Your task to perform on an android device: open app "Indeed Job Search" Image 0: 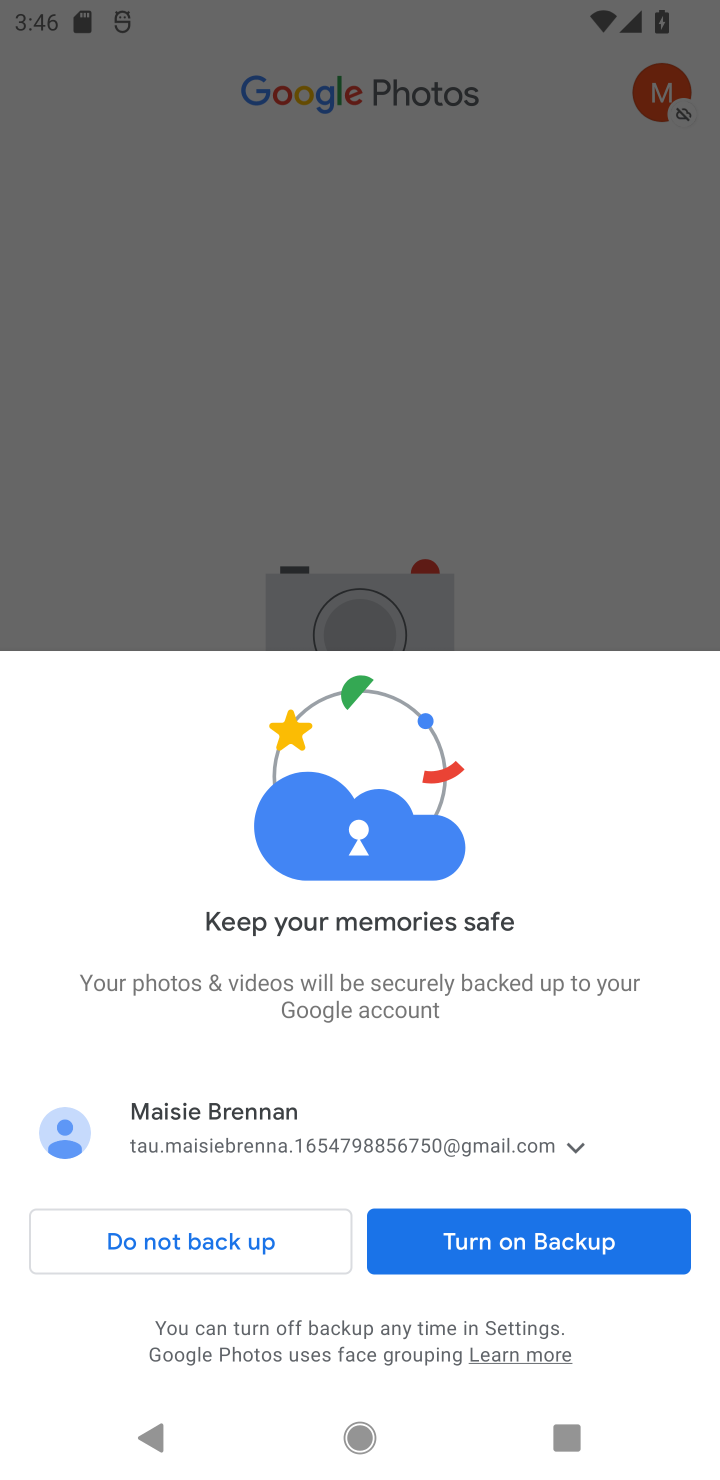
Step 0: click (259, 1230)
Your task to perform on an android device: open app "Indeed Job Search" Image 1: 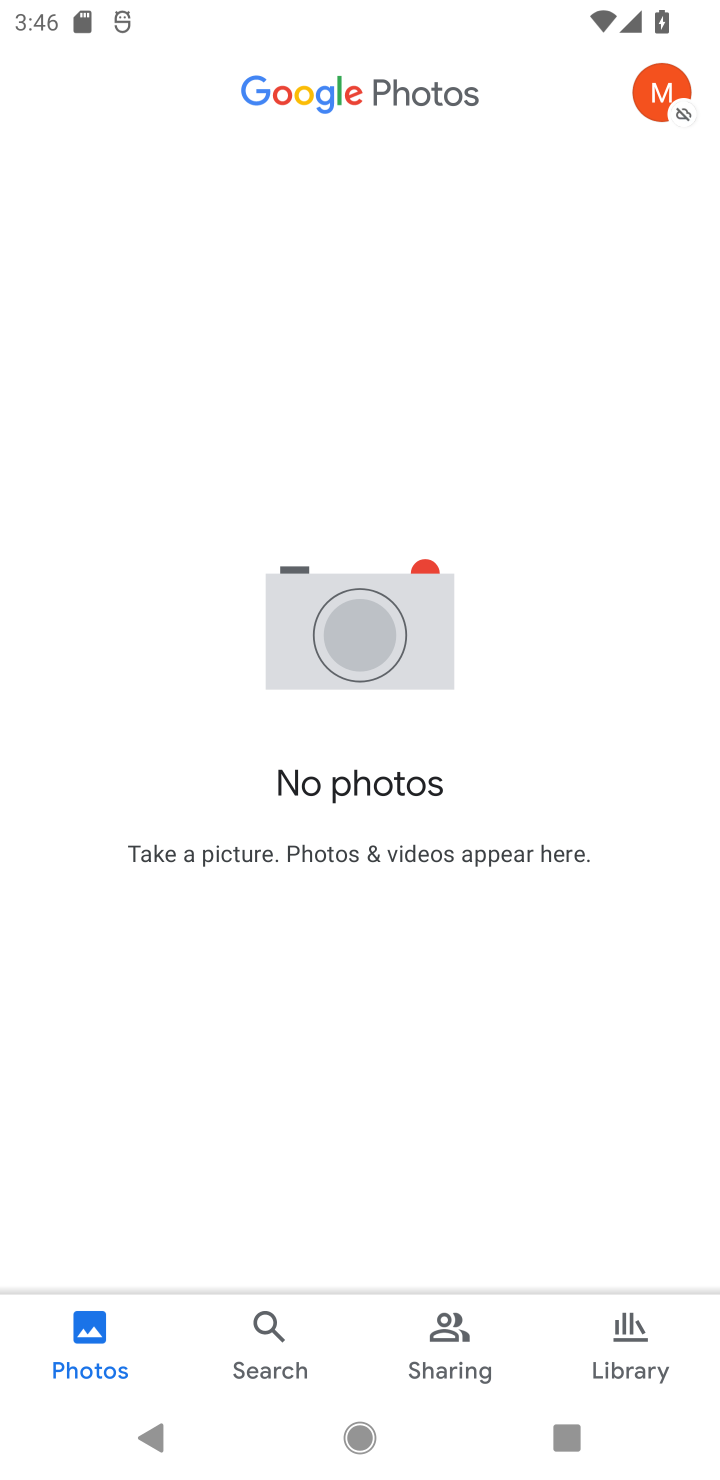
Step 1: press home button
Your task to perform on an android device: open app "Indeed Job Search" Image 2: 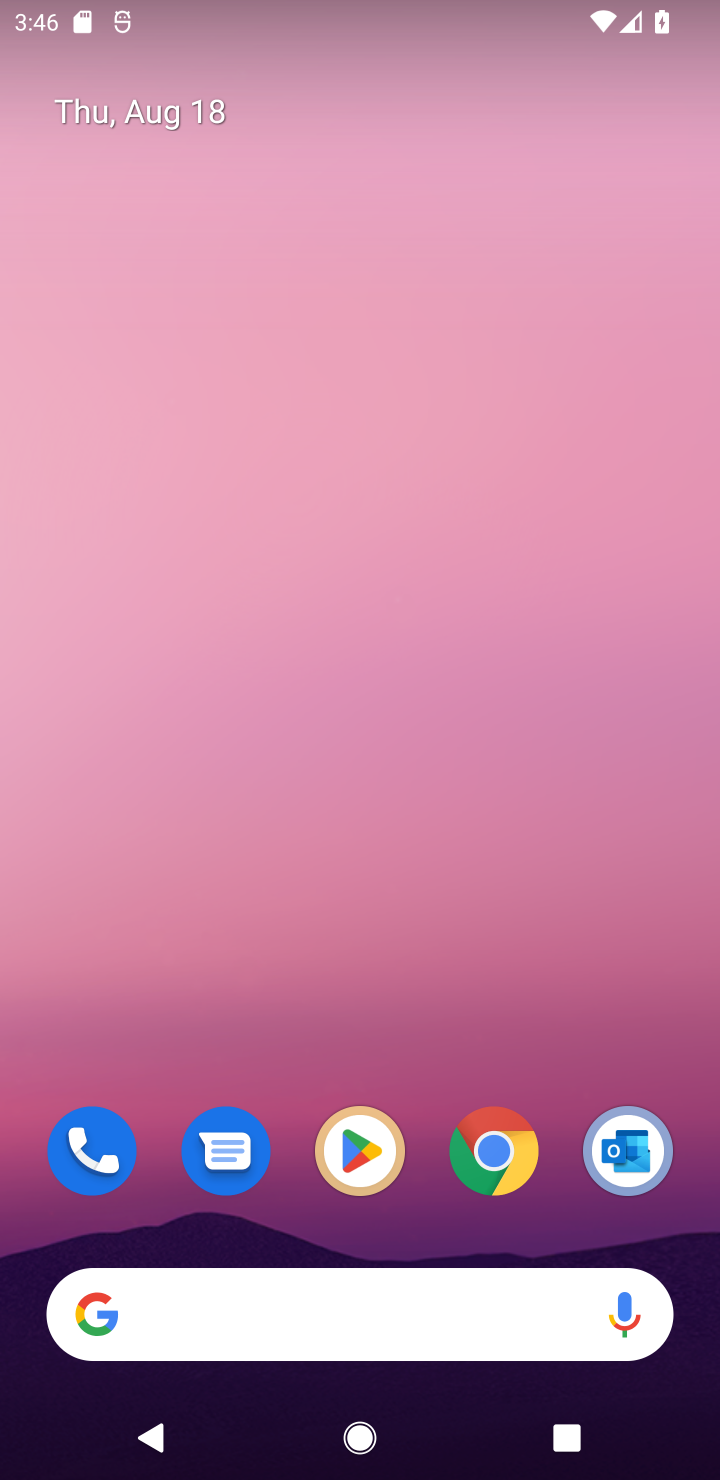
Step 2: click (351, 1196)
Your task to perform on an android device: open app "Indeed Job Search" Image 3: 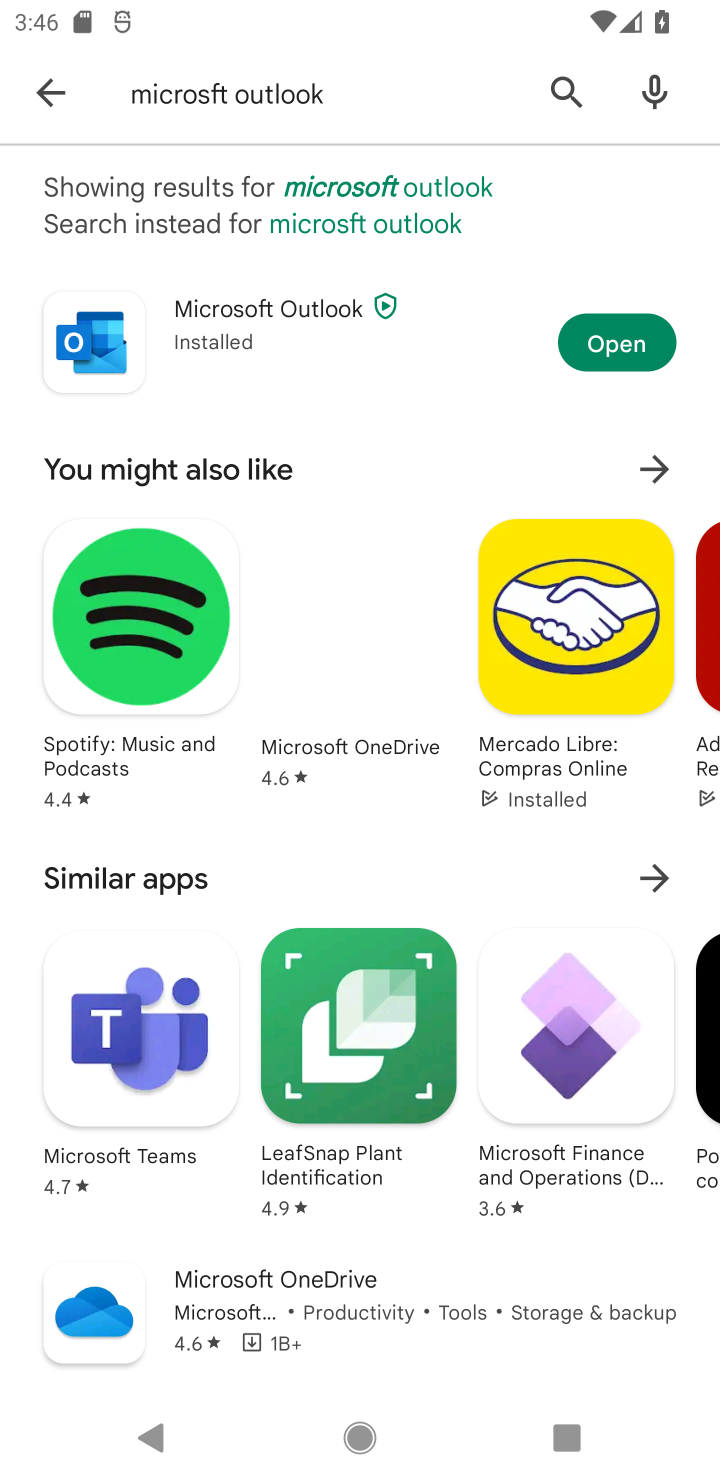
Step 3: click (572, 102)
Your task to perform on an android device: open app "Indeed Job Search" Image 4: 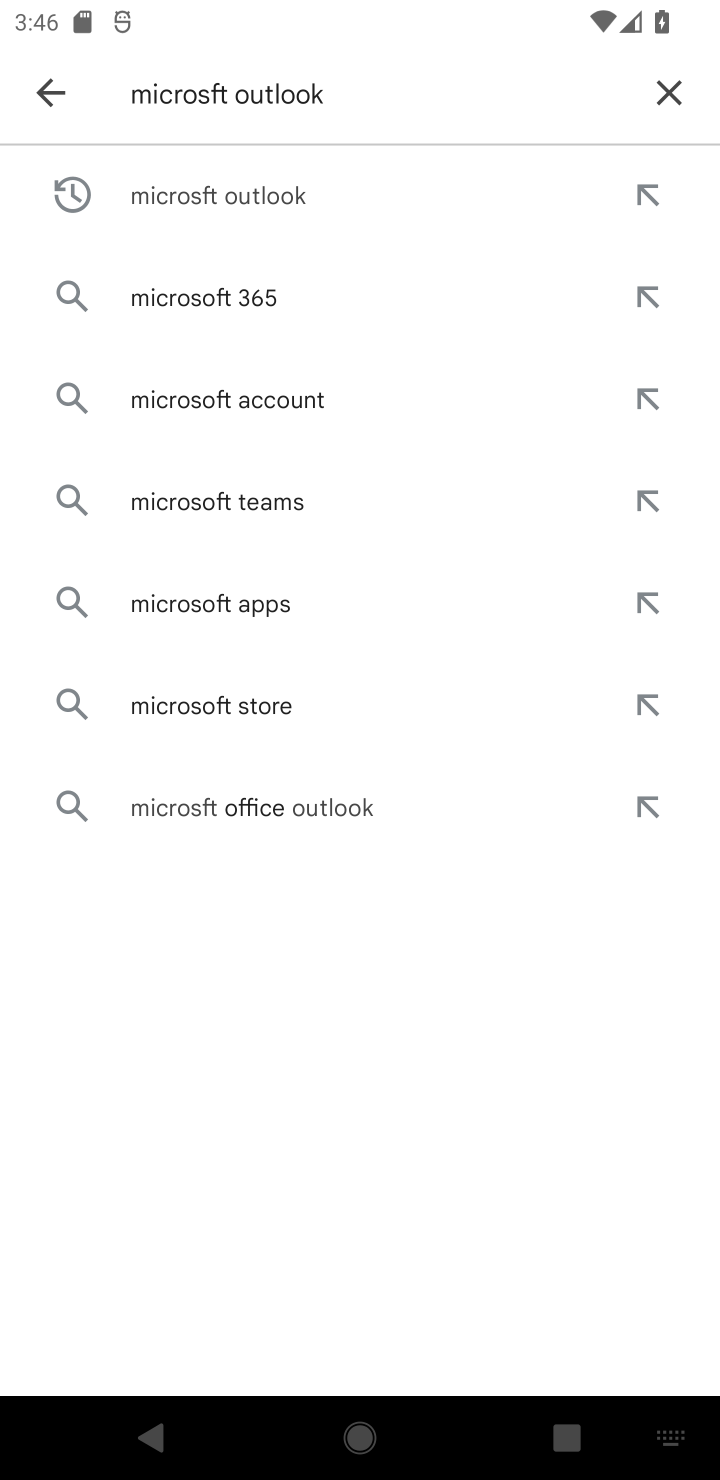
Step 4: click (656, 99)
Your task to perform on an android device: open app "Indeed Job Search" Image 5: 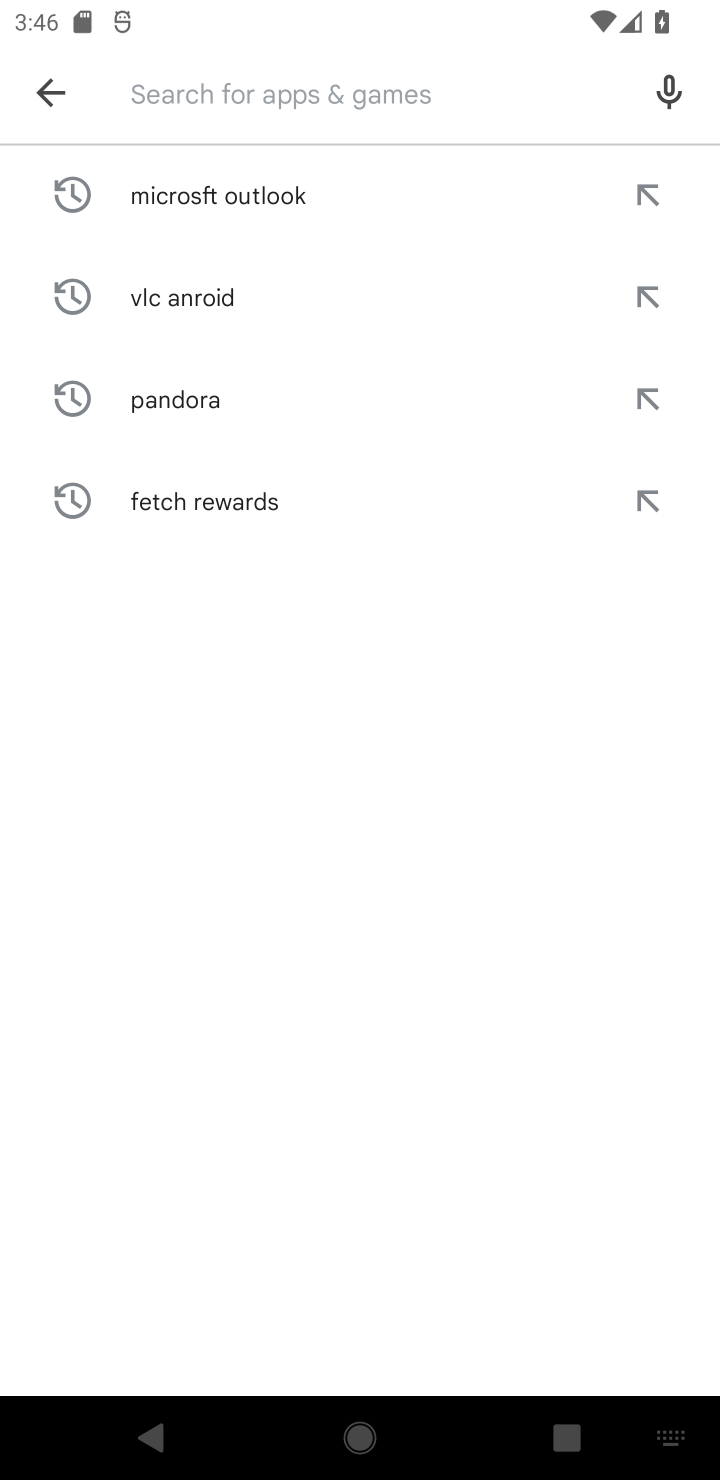
Step 5: type "indeed"
Your task to perform on an android device: open app "Indeed Job Search" Image 6: 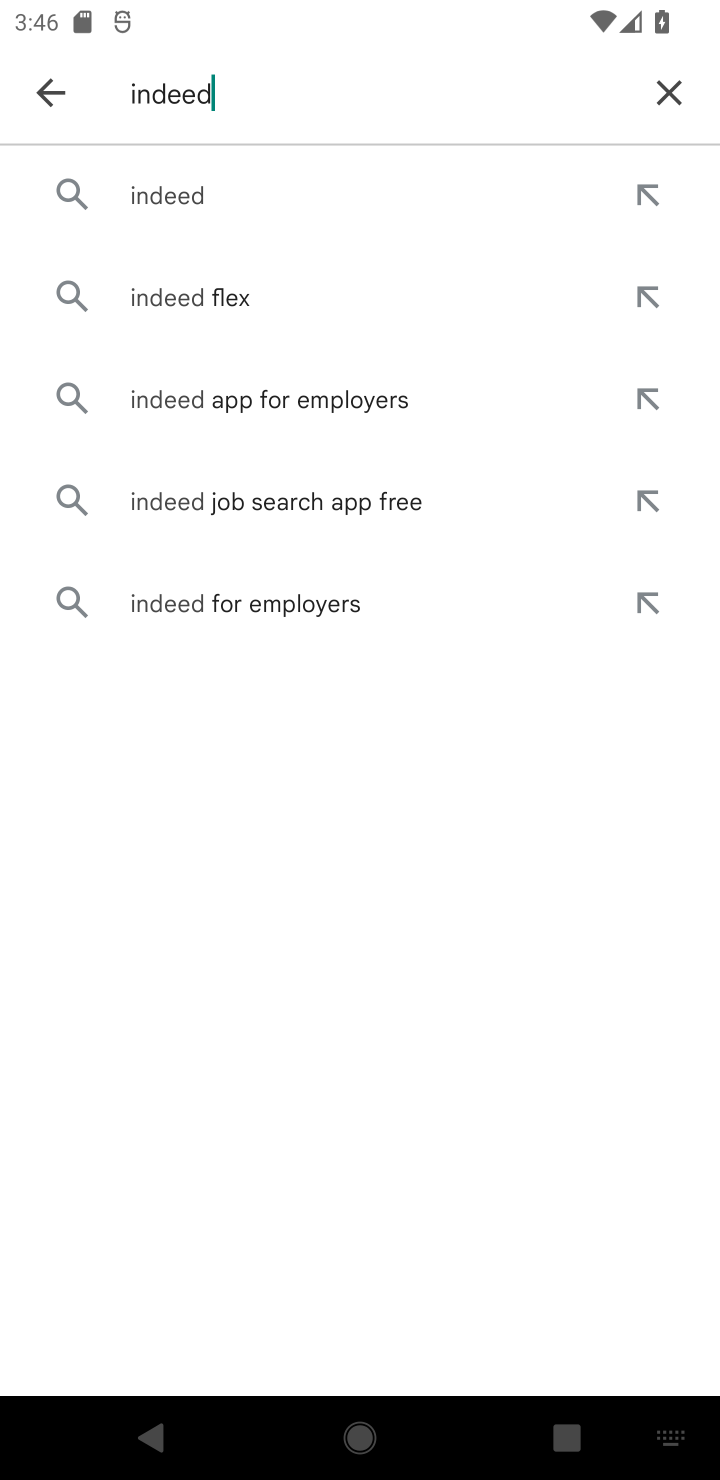
Step 6: click (192, 209)
Your task to perform on an android device: open app "Indeed Job Search" Image 7: 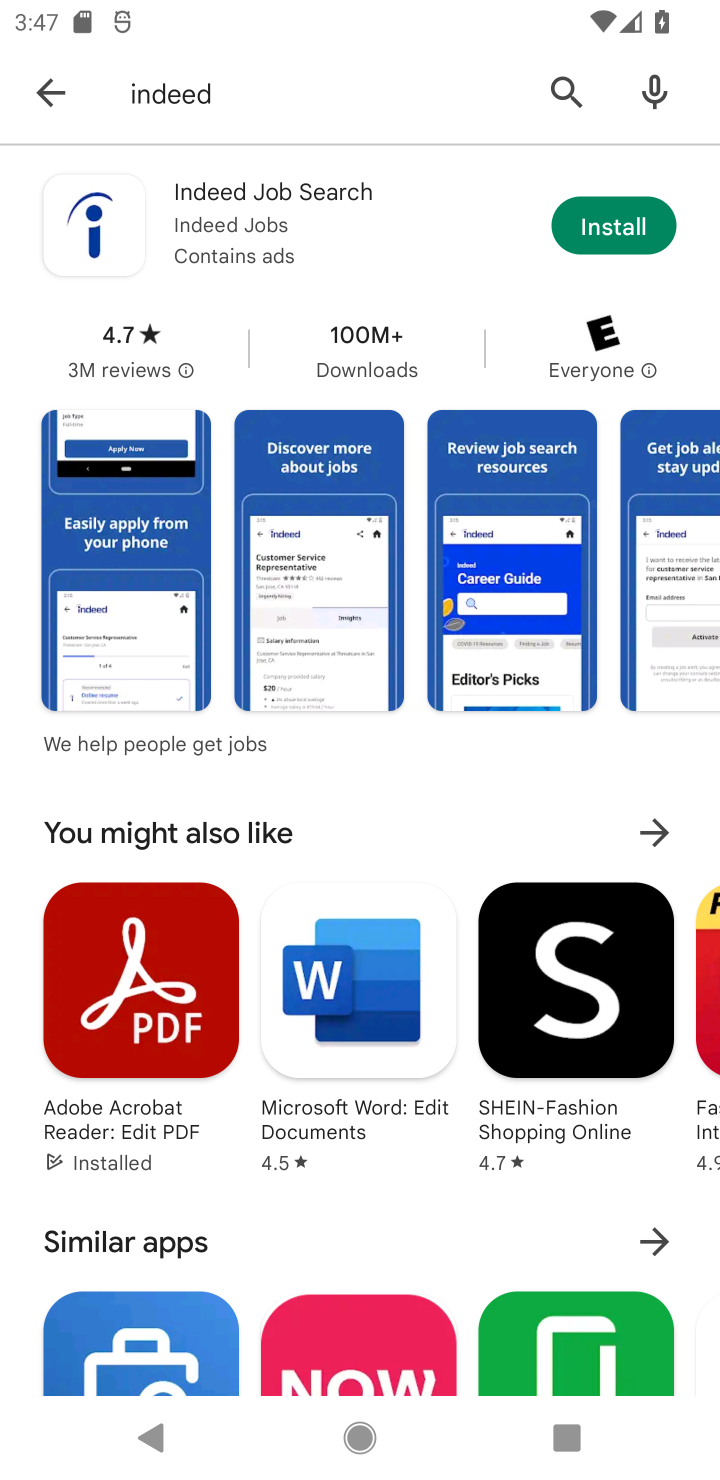
Step 7: click (563, 213)
Your task to perform on an android device: open app "Indeed Job Search" Image 8: 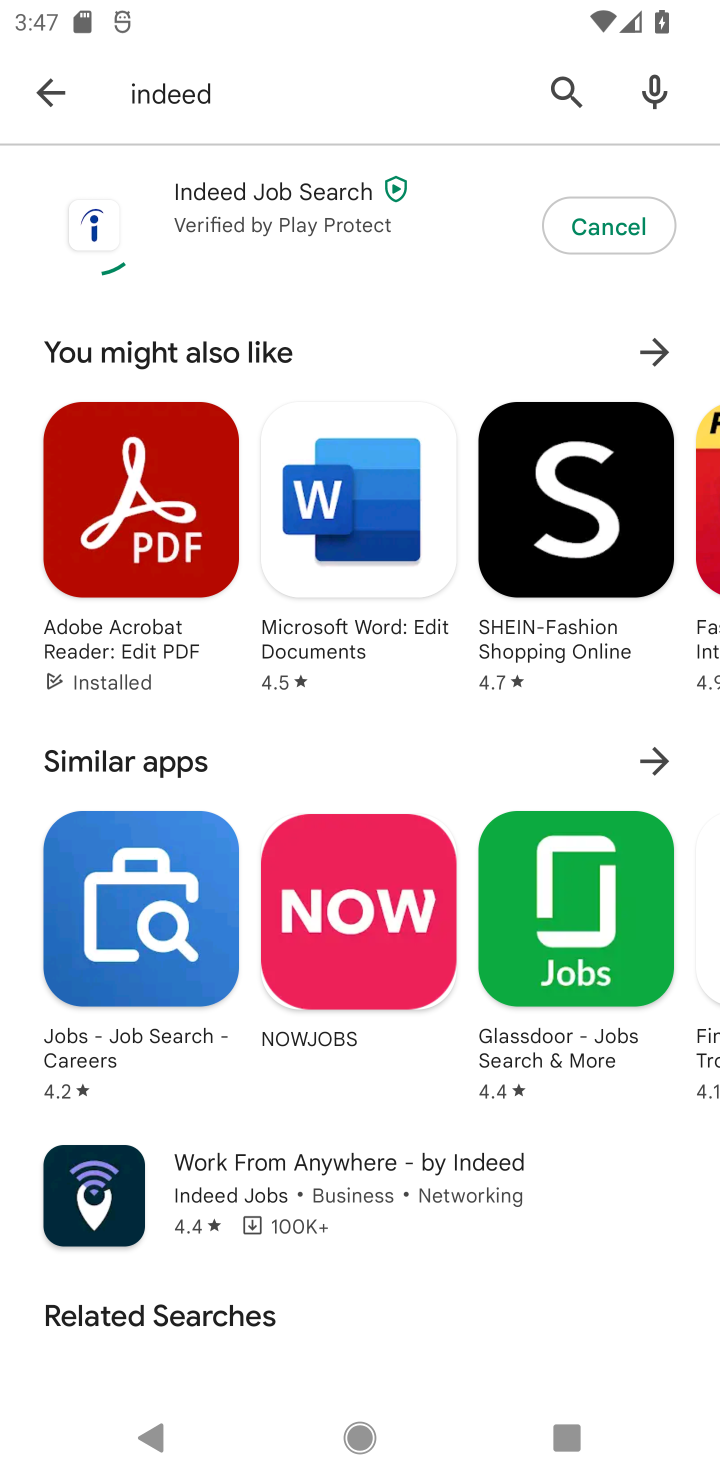
Step 8: task complete